Your task to perform on an android device: What's the weather going to be tomorrow? Image 0: 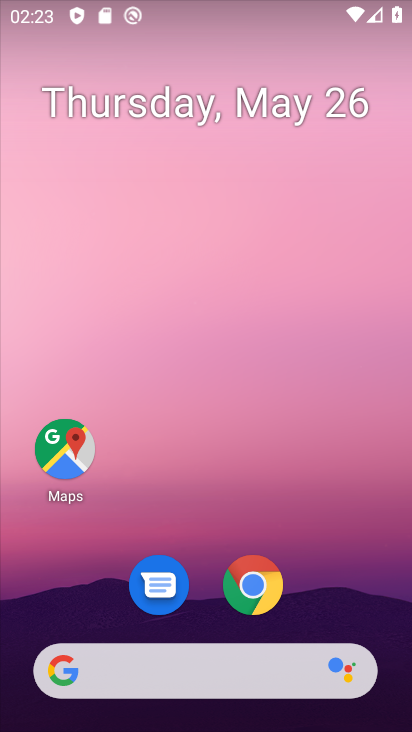
Step 0: click (204, 684)
Your task to perform on an android device: What's the weather going to be tomorrow? Image 1: 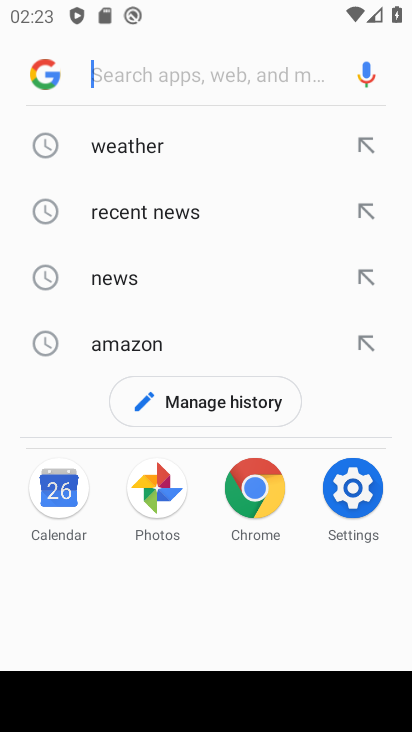
Step 1: click (130, 147)
Your task to perform on an android device: What's the weather going to be tomorrow? Image 2: 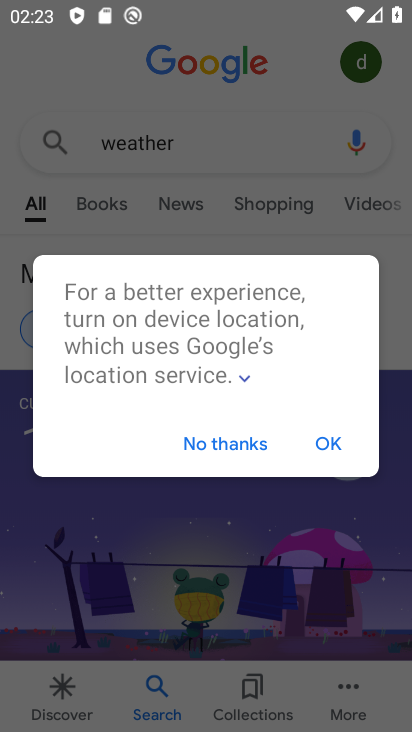
Step 2: click (249, 444)
Your task to perform on an android device: What's the weather going to be tomorrow? Image 3: 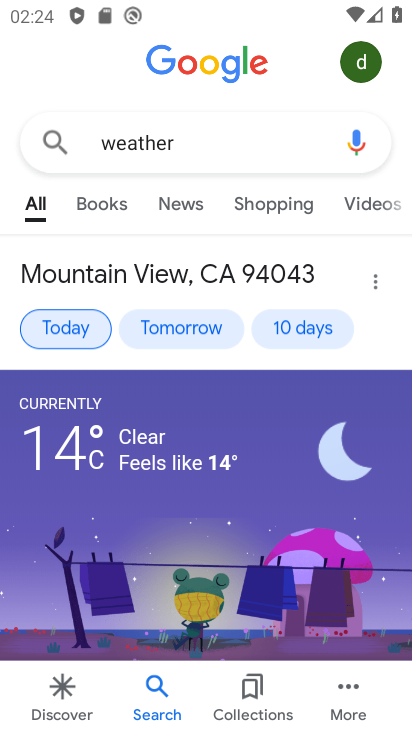
Step 3: click (94, 331)
Your task to perform on an android device: What's the weather going to be tomorrow? Image 4: 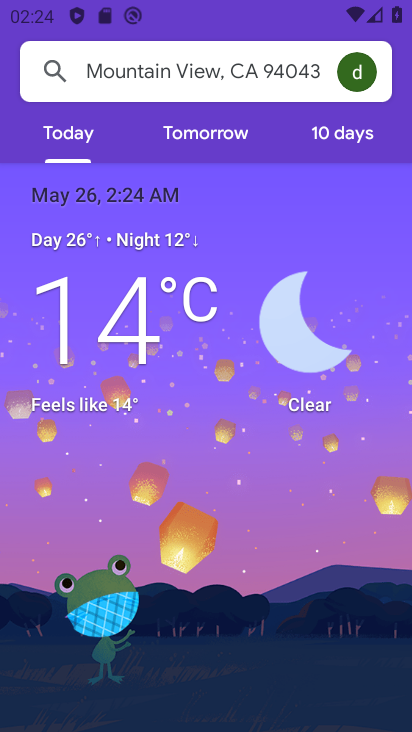
Step 4: click (199, 136)
Your task to perform on an android device: What's the weather going to be tomorrow? Image 5: 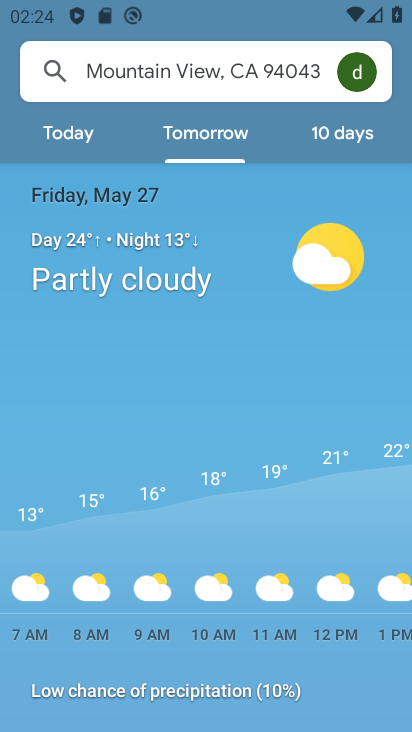
Step 5: task complete